Your task to perform on an android device: Go to calendar. Show me events next week Image 0: 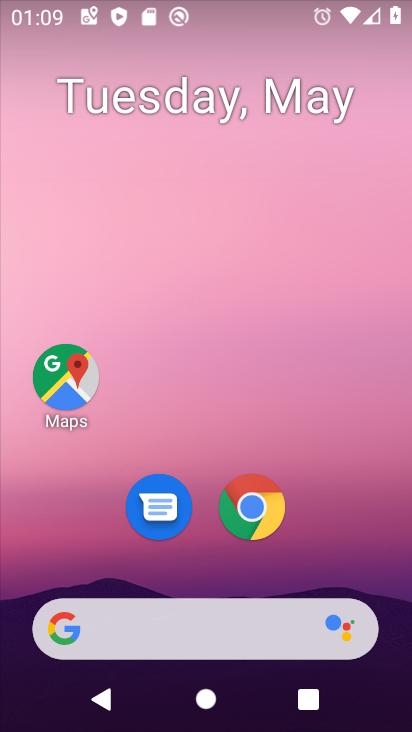
Step 0: drag from (227, 597) to (237, 211)
Your task to perform on an android device: Go to calendar. Show me events next week Image 1: 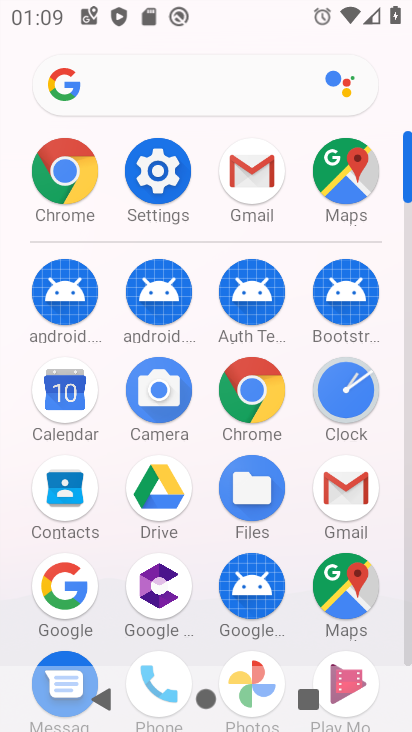
Step 1: click (79, 401)
Your task to perform on an android device: Go to calendar. Show me events next week Image 2: 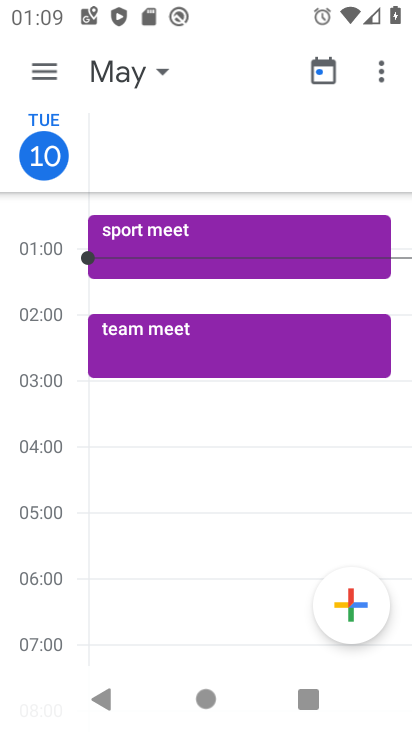
Step 2: click (139, 75)
Your task to perform on an android device: Go to calendar. Show me events next week Image 3: 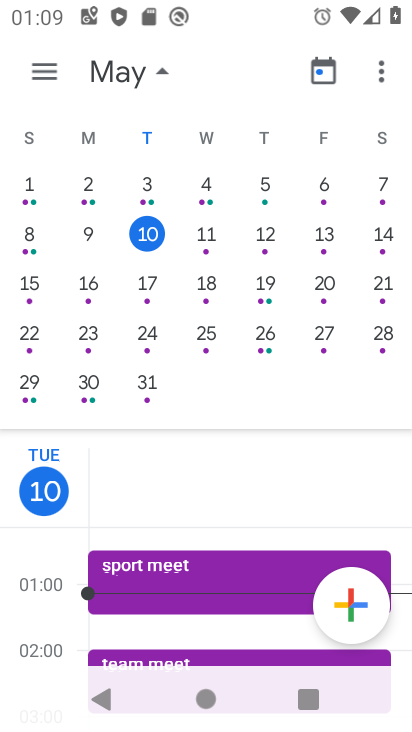
Step 3: click (277, 284)
Your task to perform on an android device: Go to calendar. Show me events next week Image 4: 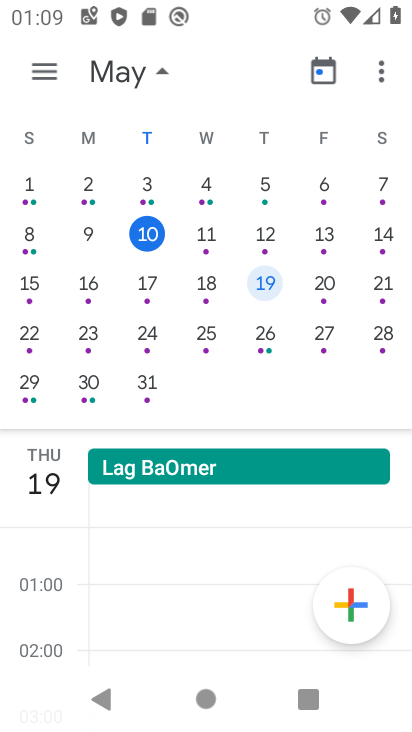
Step 4: task complete